Your task to perform on an android device: Install the Reddit app Image 0: 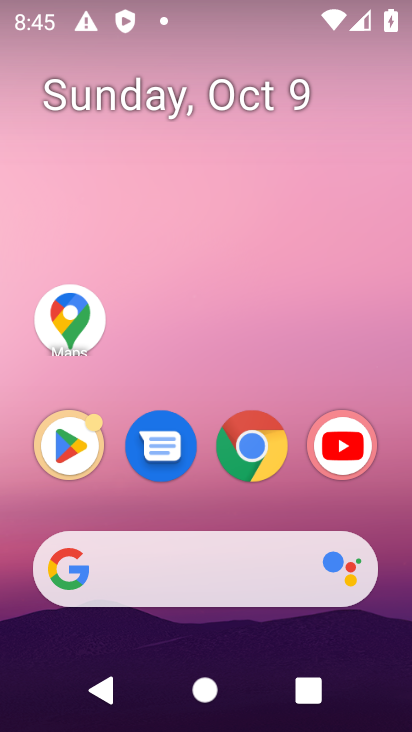
Step 0: click (74, 443)
Your task to perform on an android device: Install the Reddit app Image 1: 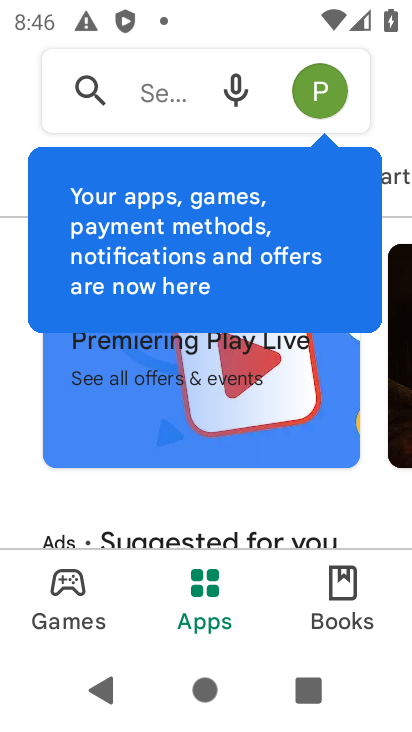
Step 1: click (144, 93)
Your task to perform on an android device: Install the Reddit app Image 2: 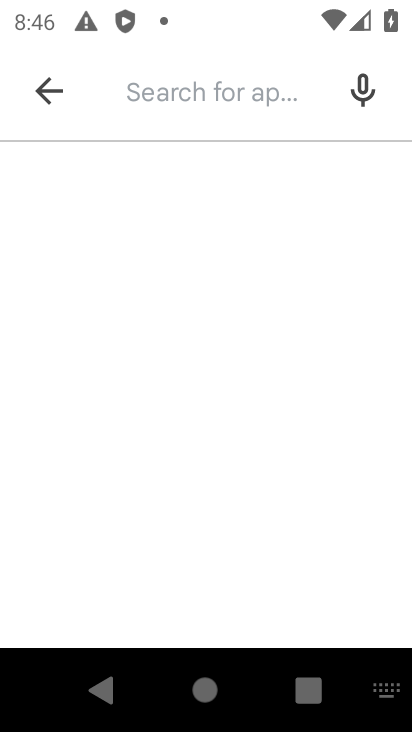
Step 2: type "reddit"
Your task to perform on an android device: Install the Reddit app Image 3: 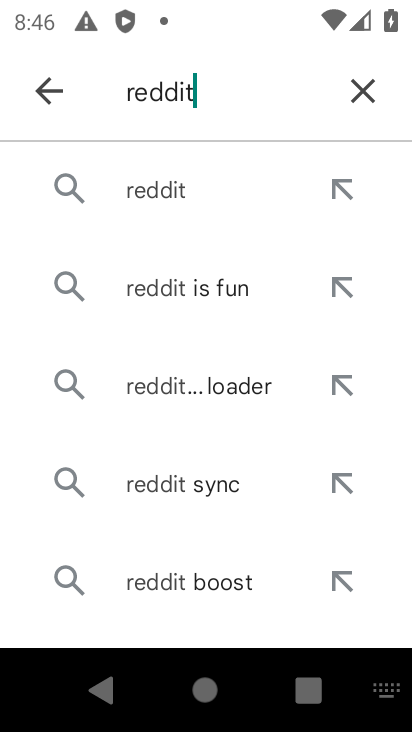
Step 3: type ""
Your task to perform on an android device: Install the Reddit app Image 4: 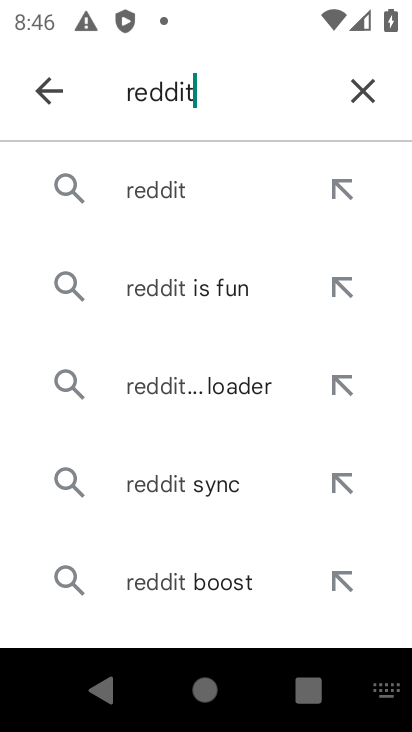
Step 4: click (180, 190)
Your task to perform on an android device: Install the Reddit app Image 5: 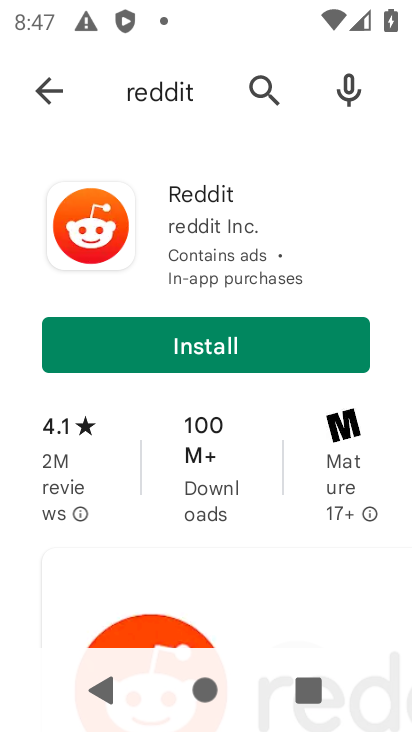
Step 5: click (263, 336)
Your task to perform on an android device: Install the Reddit app Image 6: 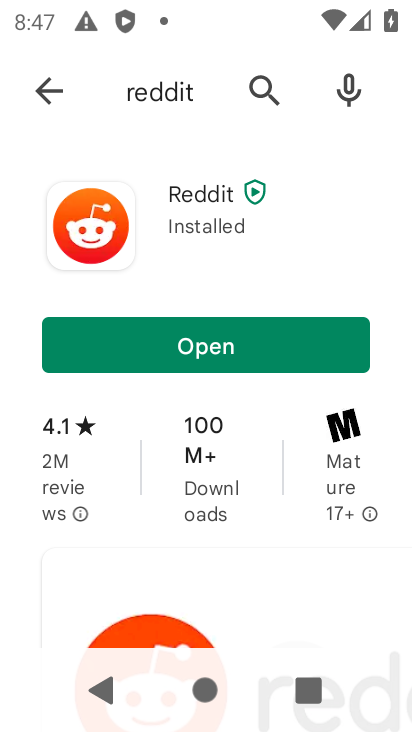
Step 6: task complete